Your task to perform on an android device: Check the settings for the Amazon Alexa app Image 0: 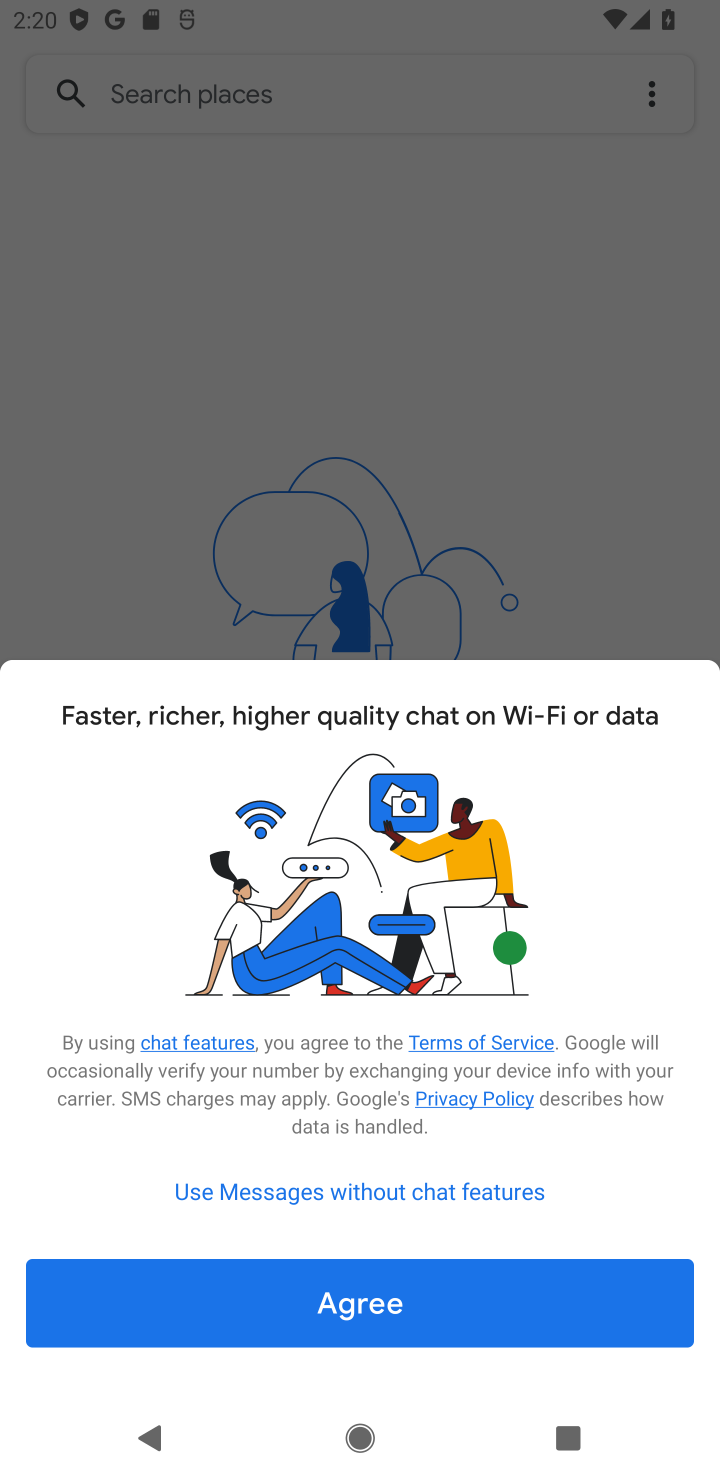
Step 0: press home button
Your task to perform on an android device: Check the settings for the Amazon Alexa app Image 1: 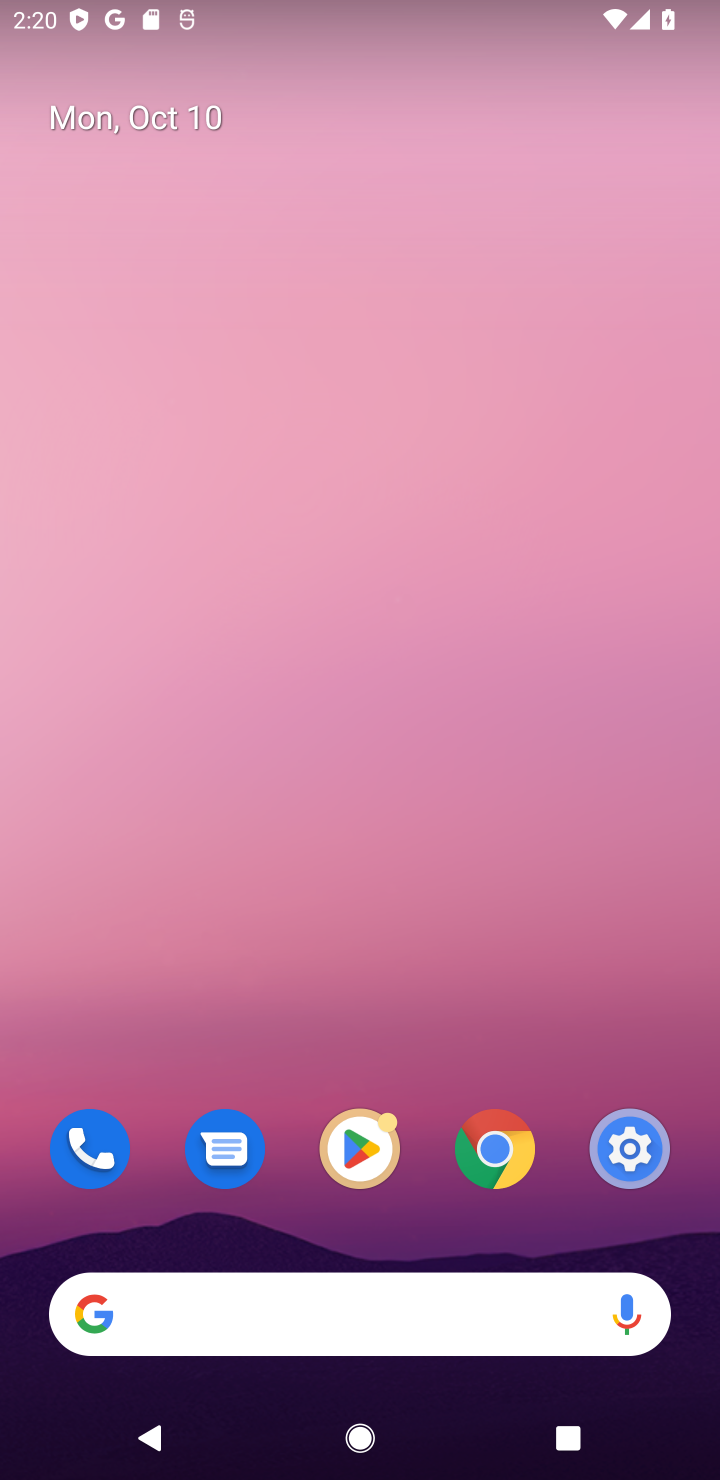
Step 1: task complete